Your task to perform on an android device: Search for pizza restaurants on Maps Image 0: 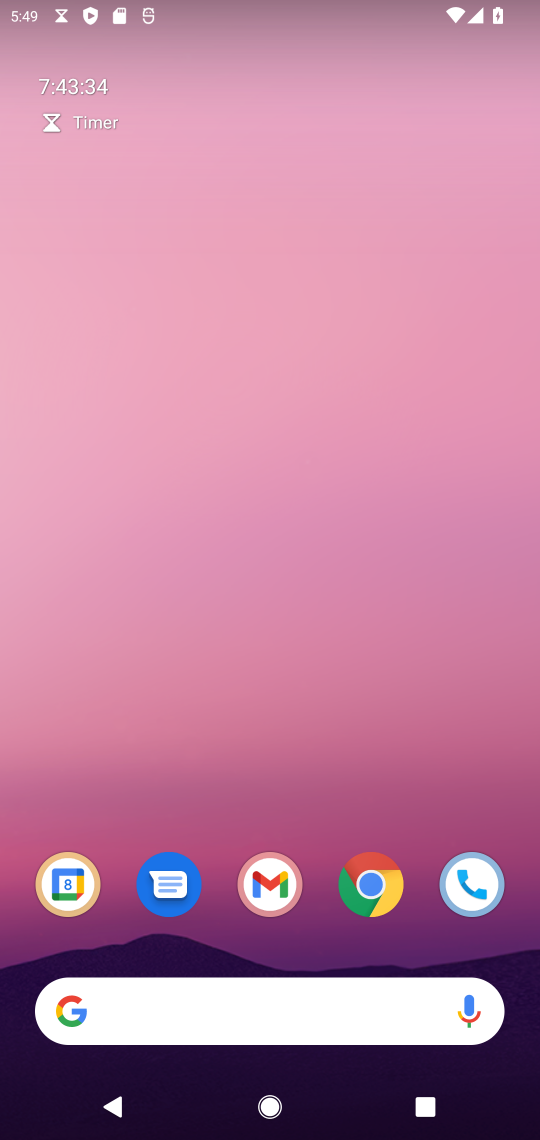
Step 0: drag from (336, 818) to (329, 383)
Your task to perform on an android device: Search for pizza restaurants on Maps Image 1: 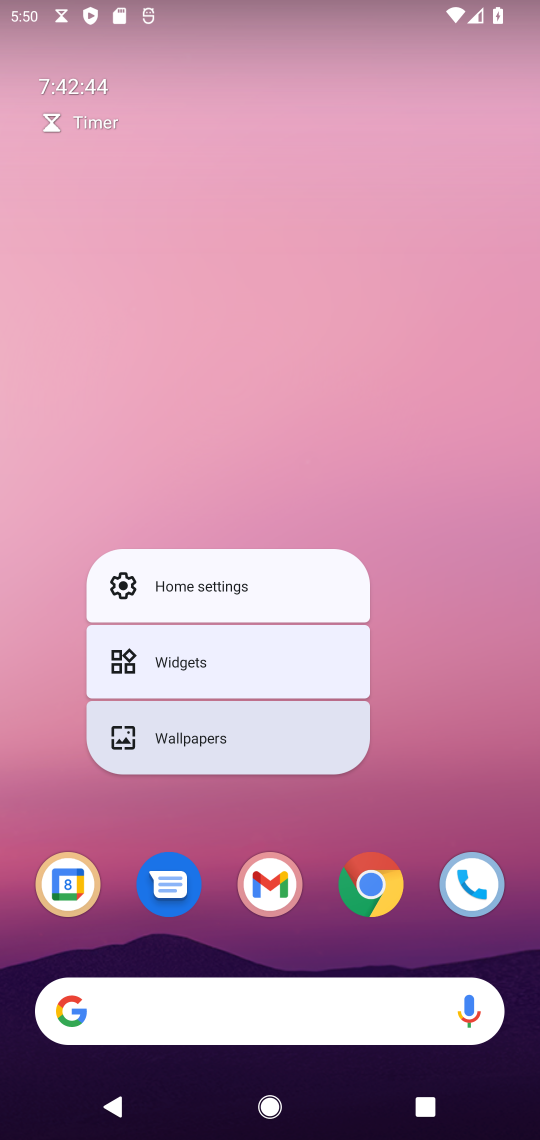
Step 1: drag from (449, 782) to (388, 80)
Your task to perform on an android device: Search for pizza restaurants on Maps Image 2: 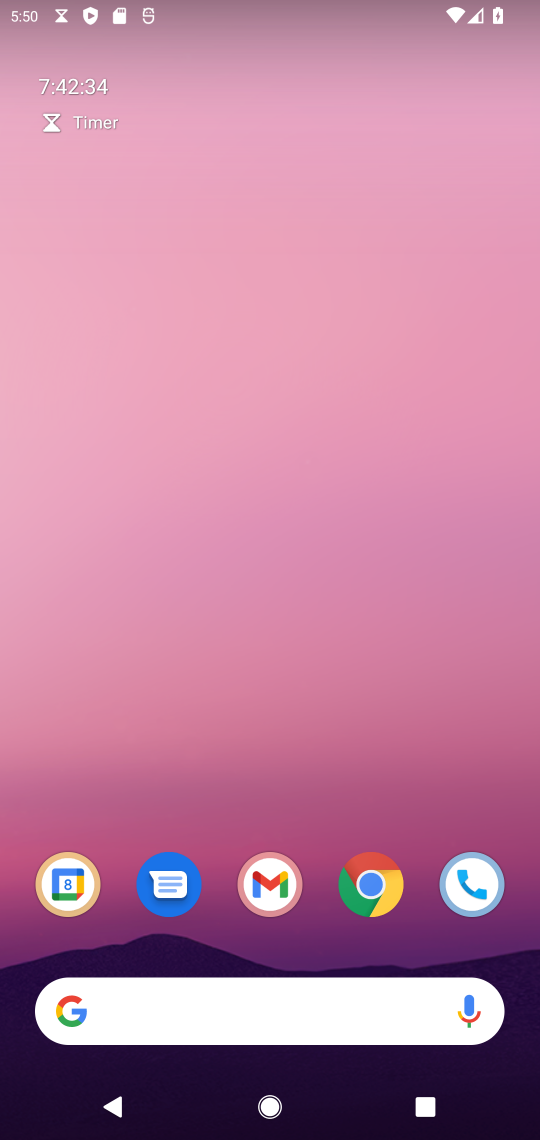
Step 2: drag from (433, 957) to (370, 120)
Your task to perform on an android device: Search for pizza restaurants on Maps Image 3: 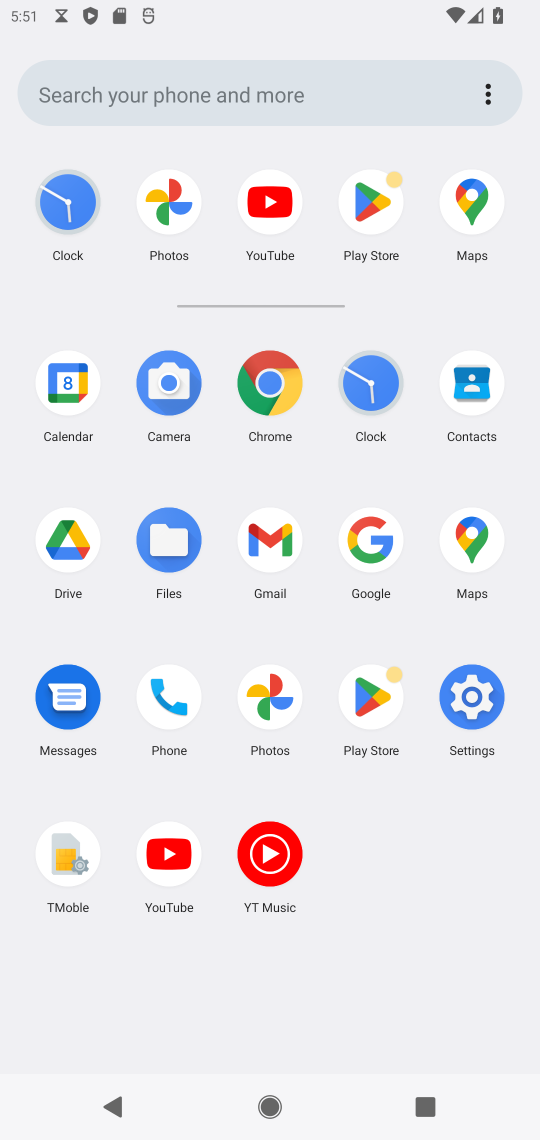
Step 3: click (487, 236)
Your task to perform on an android device: Search for pizza restaurants on Maps Image 4: 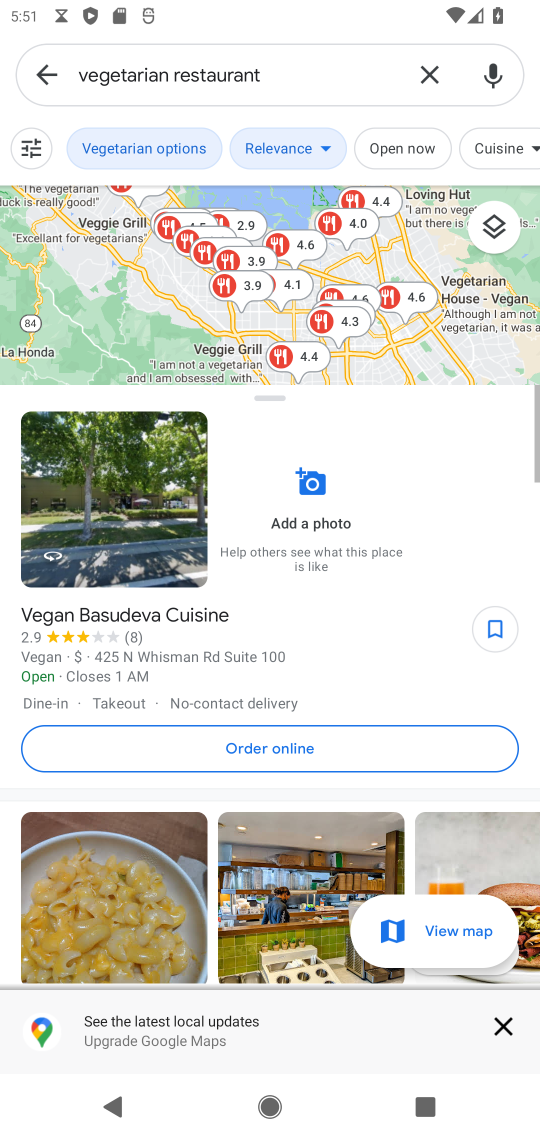
Step 4: click (438, 83)
Your task to perform on an android device: Search for pizza restaurants on Maps Image 5: 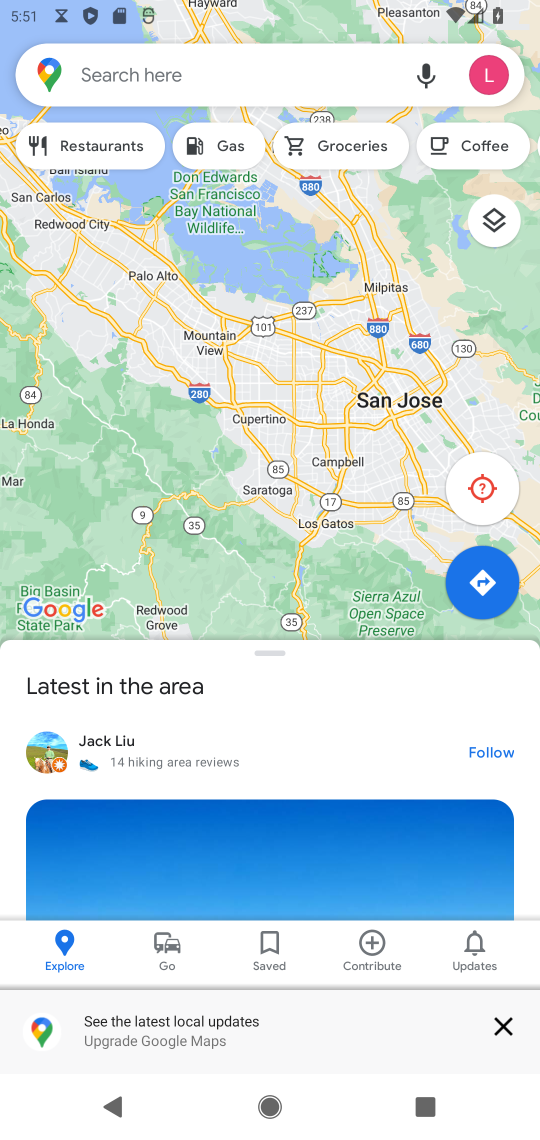
Step 5: click (228, 92)
Your task to perform on an android device: Search for pizza restaurants on Maps Image 6: 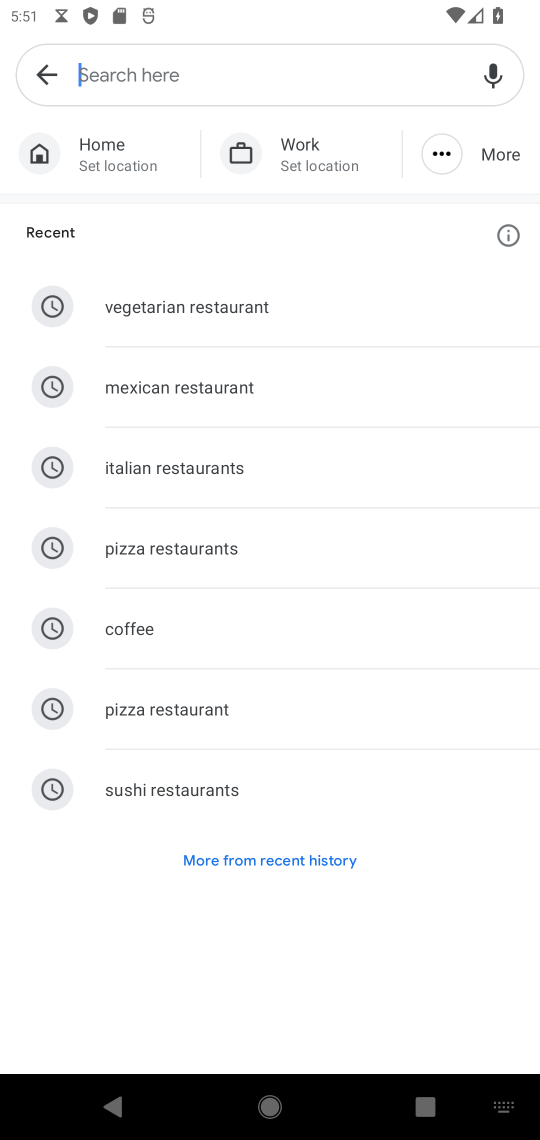
Step 6: click (249, 548)
Your task to perform on an android device: Search for pizza restaurants on Maps Image 7: 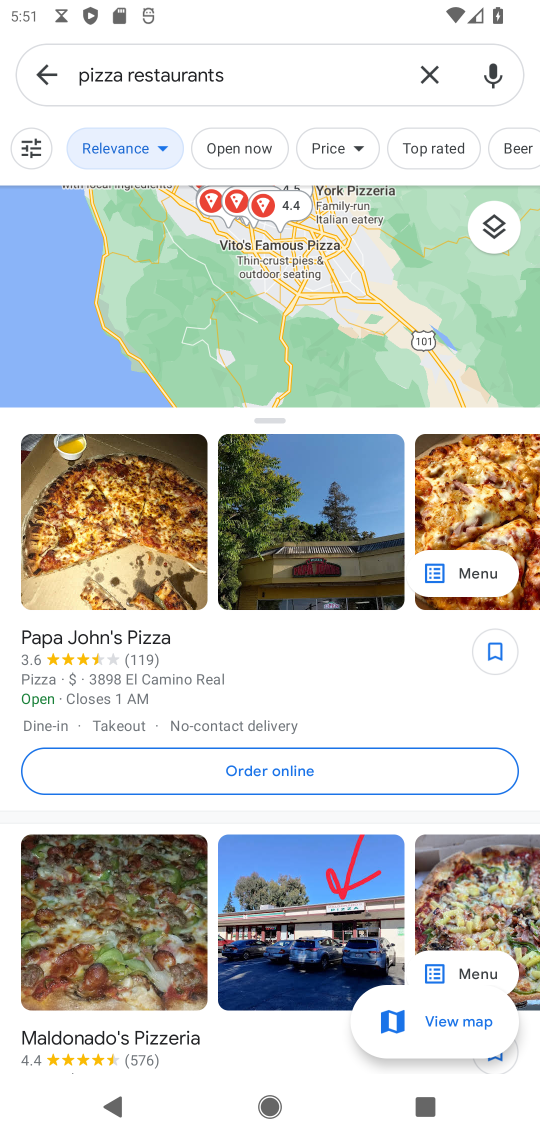
Step 7: task complete